Your task to perform on an android device: Go to eBay Image 0: 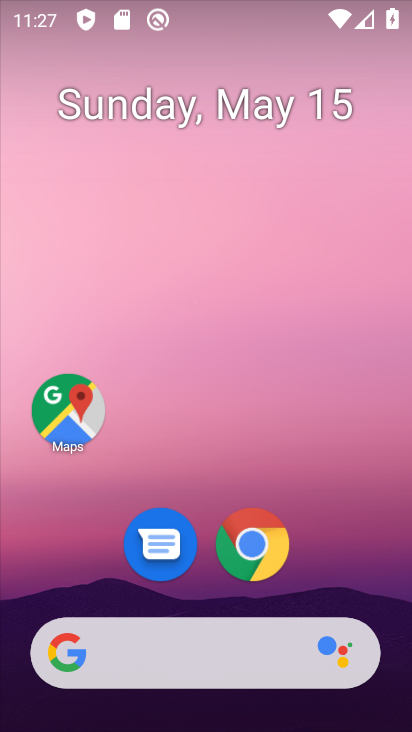
Step 0: click (258, 535)
Your task to perform on an android device: Go to eBay Image 1: 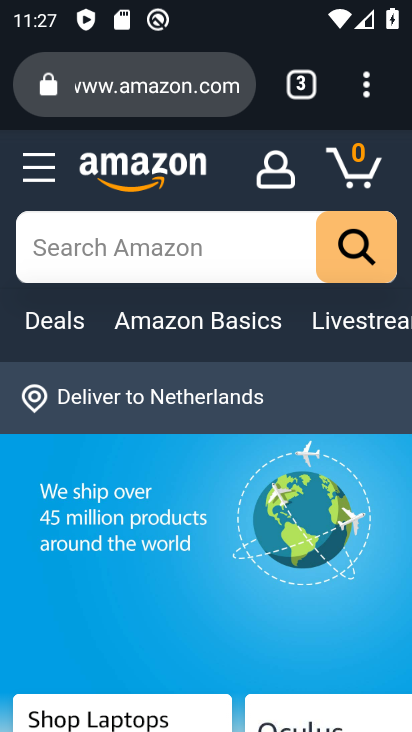
Step 1: click (316, 96)
Your task to perform on an android device: Go to eBay Image 2: 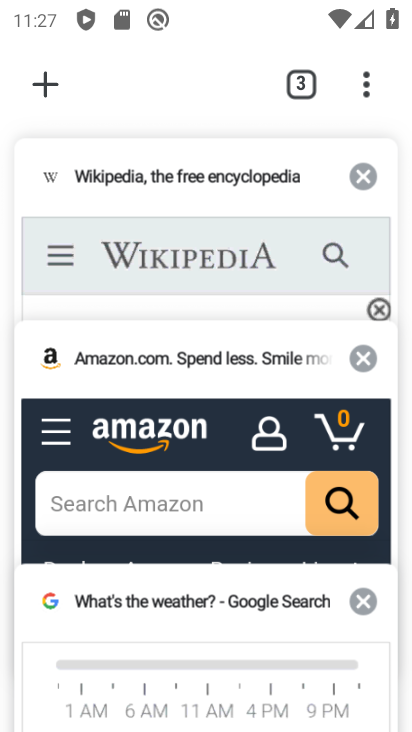
Step 2: click (59, 93)
Your task to perform on an android device: Go to eBay Image 3: 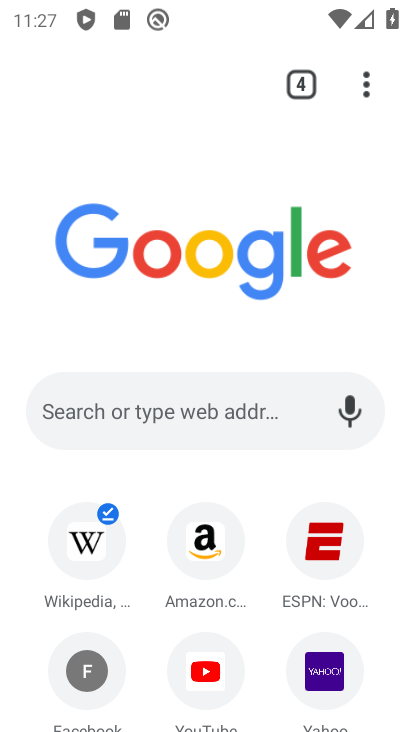
Step 3: drag from (387, 545) to (381, 154)
Your task to perform on an android device: Go to eBay Image 4: 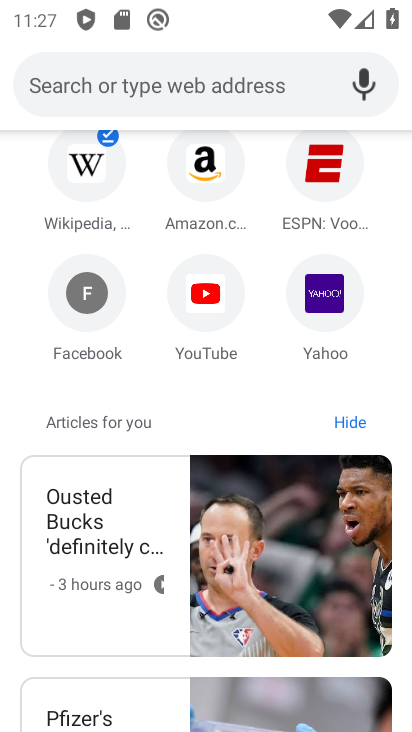
Step 4: drag from (394, 201) to (371, 430)
Your task to perform on an android device: Go to eBay Image 5: 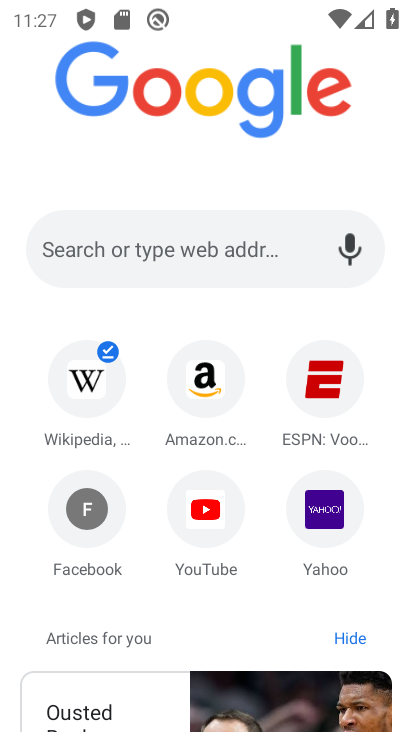
Step 5: click (196, 171)
Your task to perform on an android device: Go to eBay Image 6: 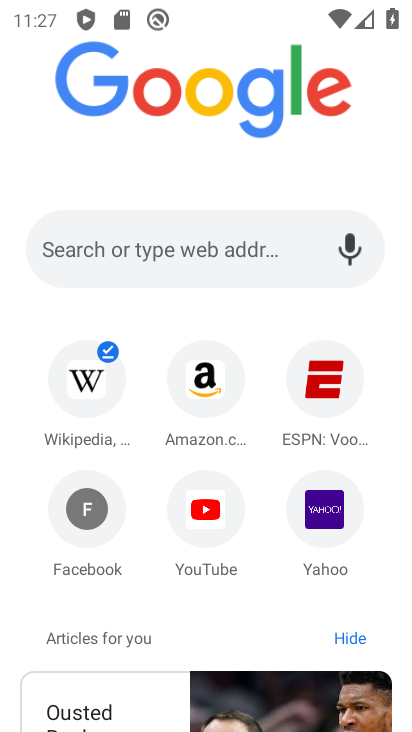
Step 6: click (222, 243)
Your task to perform on an android device: Go to eBay Image 7: 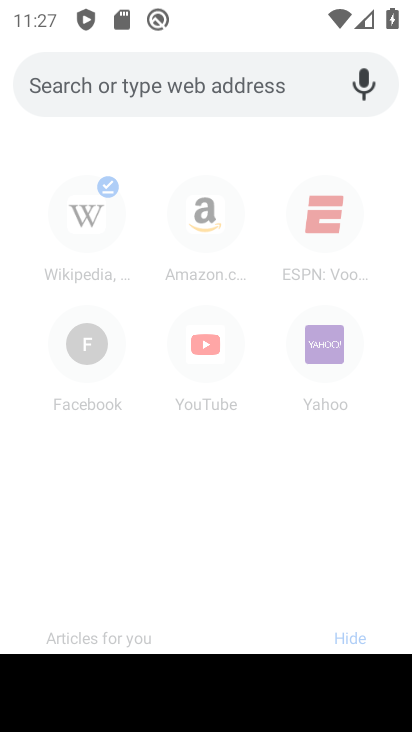
Step 7: type "eBay"
Your task to perform on an android device: Go to eBay Image 8: 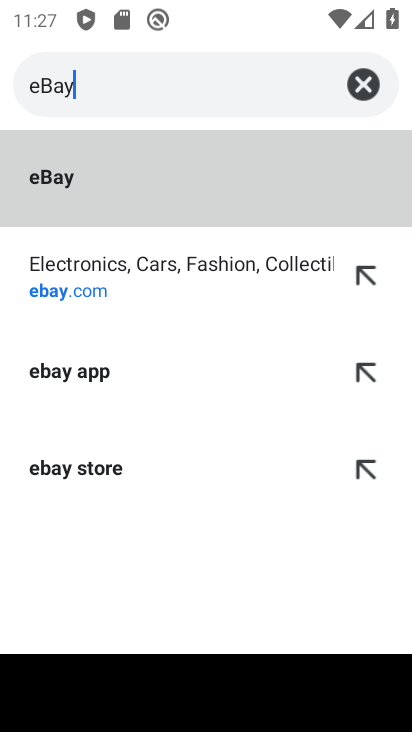
Step 8: click (112, 262)
Your task to perform on an android device: Go to eBay Image 9: 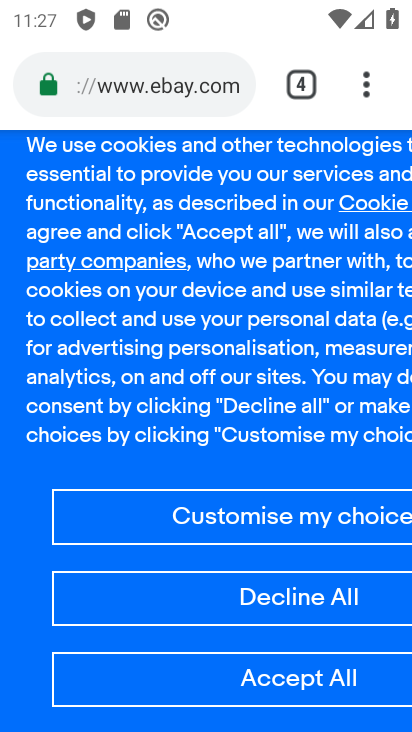
Step 9: task complete